Your task to perform on an android device: Go to Yahoo.com Image 0: 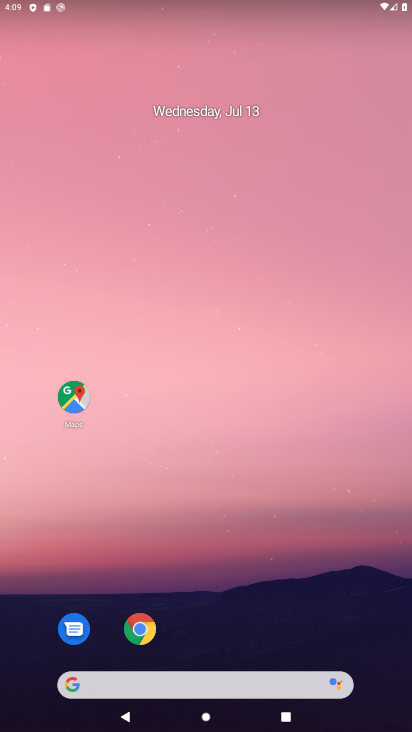
Step 0: drag from (279, 612) to (262, 13)
Your task to perform on an android device: Go to Yahoo.com Image 1: 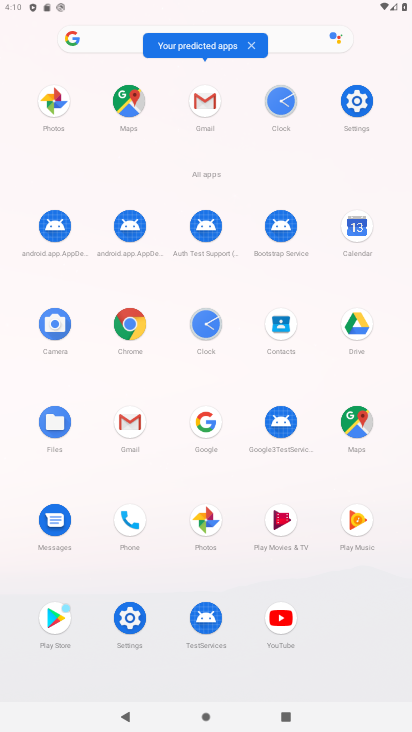
Step 1: click (134, 321)
Your task to perform on an android device: Go to Yahoo.com Image 2: 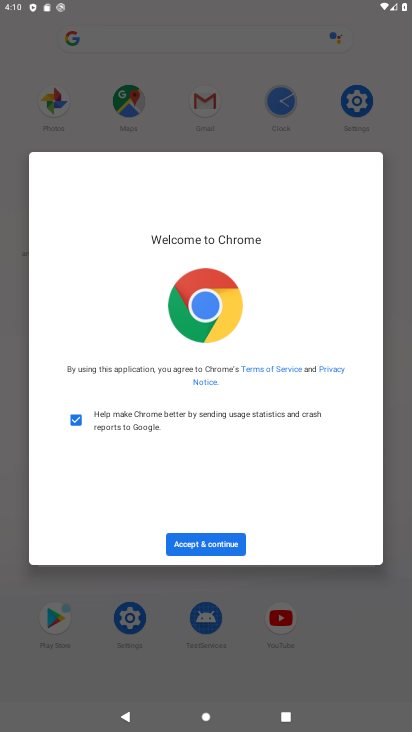
Step 2: click (227, 534)
Your task to perform on an android device: Go to Yahoo.com Image 3: 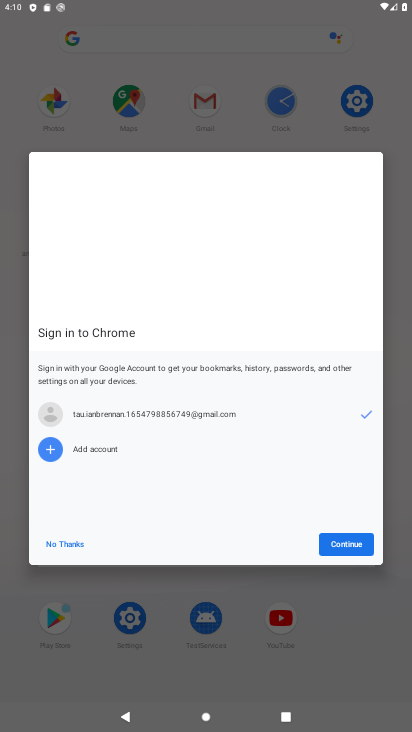
Step 3: click (336, 543)
Your task to perform on an android device: Go to Yahoo.com Image 4: 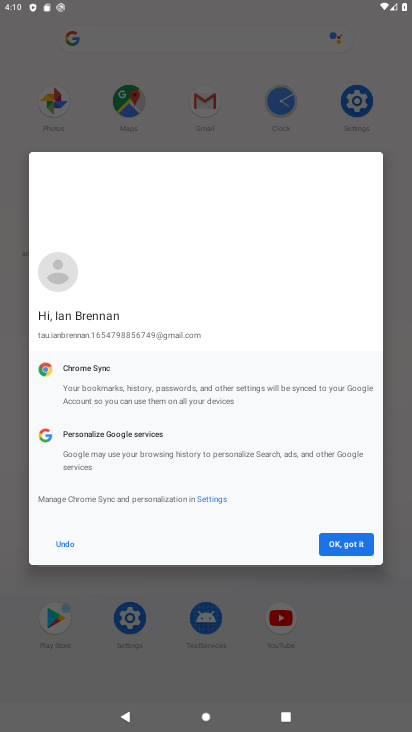
Step 4: click (336, 543)
Your task to perform on an android device: Go to Yahoo.com Image 5: 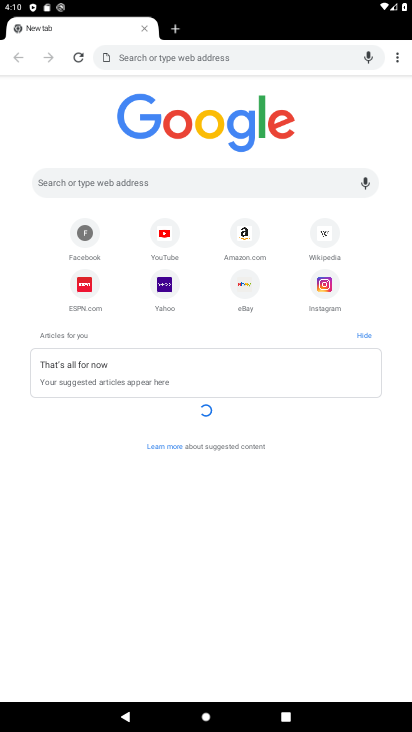
Step 5: click (171, 49)
Your task to perform on an android device: Go to Yahoo.com Image 6: 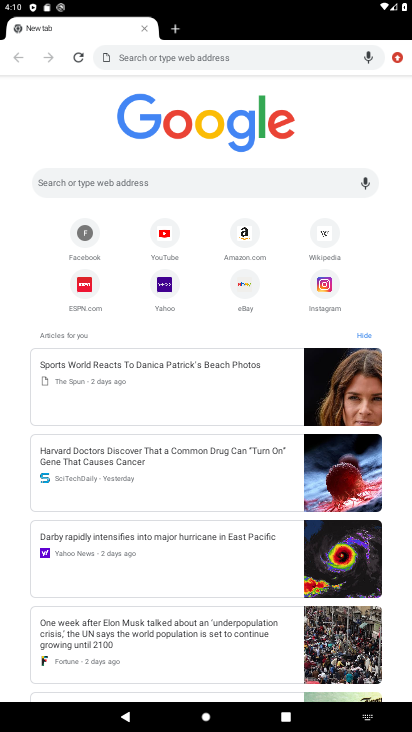
Step 6: type " Yahoo.com"
Your task to perform on an android device: Go to Yahoo.com Image 7: 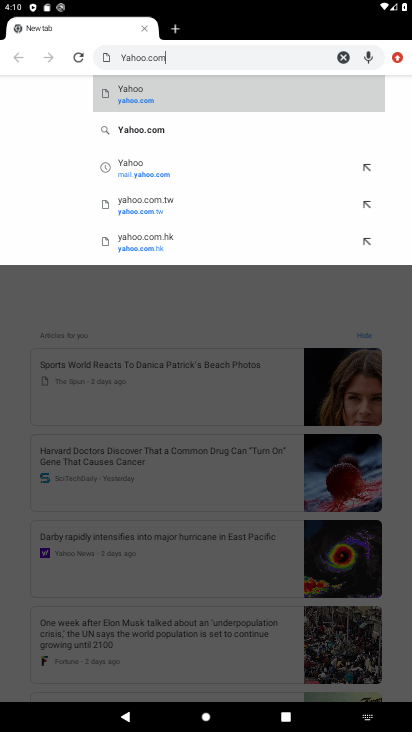
Step 7: click (121, 99)
Your task to perform on an android device: Go to Yahoo.com Image 8: 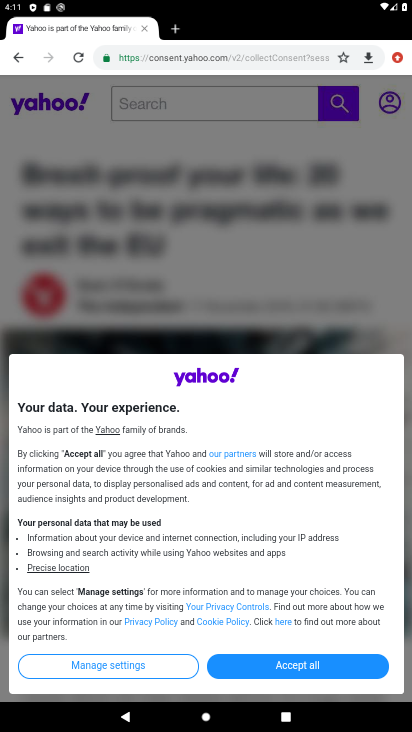
Step 8: click (339, 662)
Your task to perform on an android device: Go to Yahoo.com Image 9: 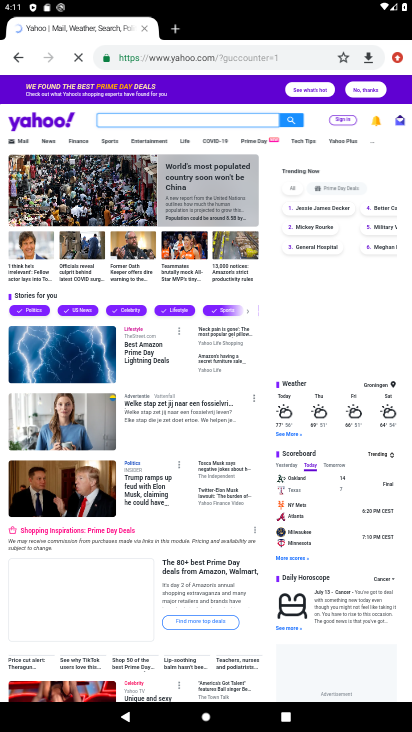
Step 9: task complete